Your task to perform on an android device: Open the map Image 0: 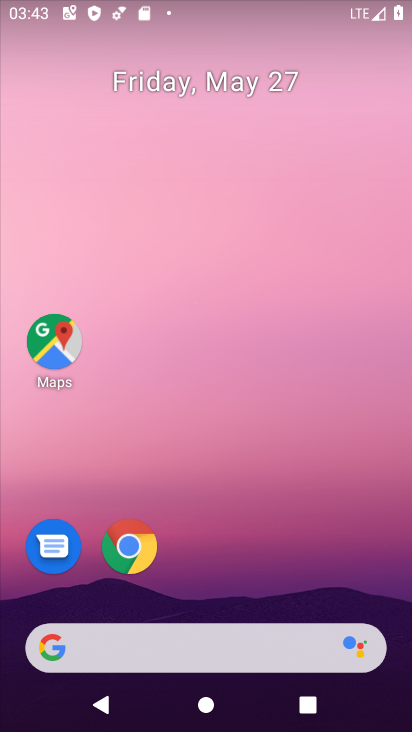
Step 0: click (43, 354)
Your task to perform on an android device: Open the map Image 1: 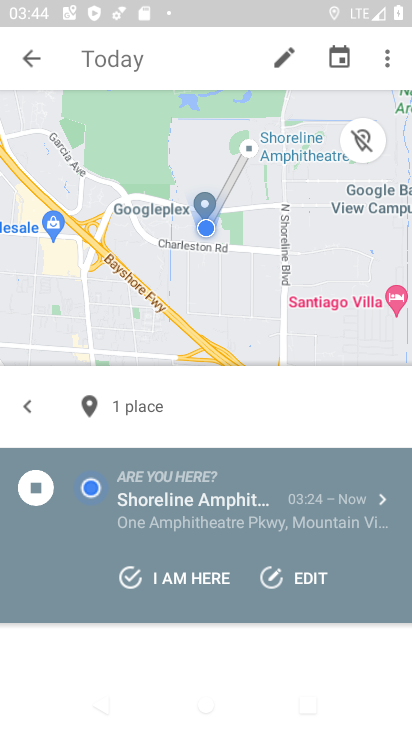
Step 1: task complete